Your task to perform on an android device: Show me the best rated power washer on Home Depot. Image 0: 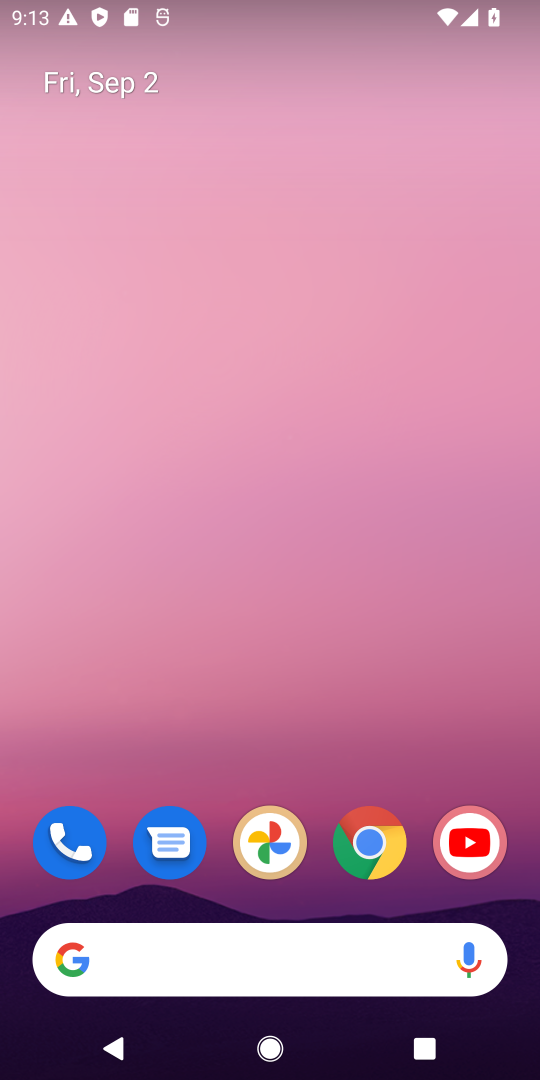
Step 0: drag from (246, 830) to (94, 2)
Your task to perform on an android device: Show me the best rated power washer on Home Depot. Image 1: 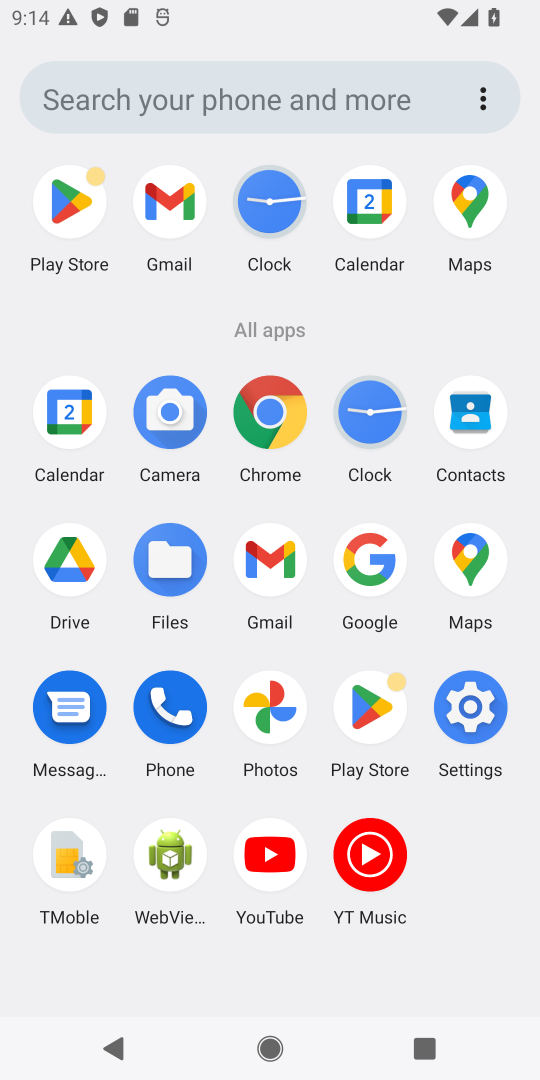
Step 1: click (281, 416)
Your task to perform on an android device: Show me the best rated power washer on Home Depot. Image 2: 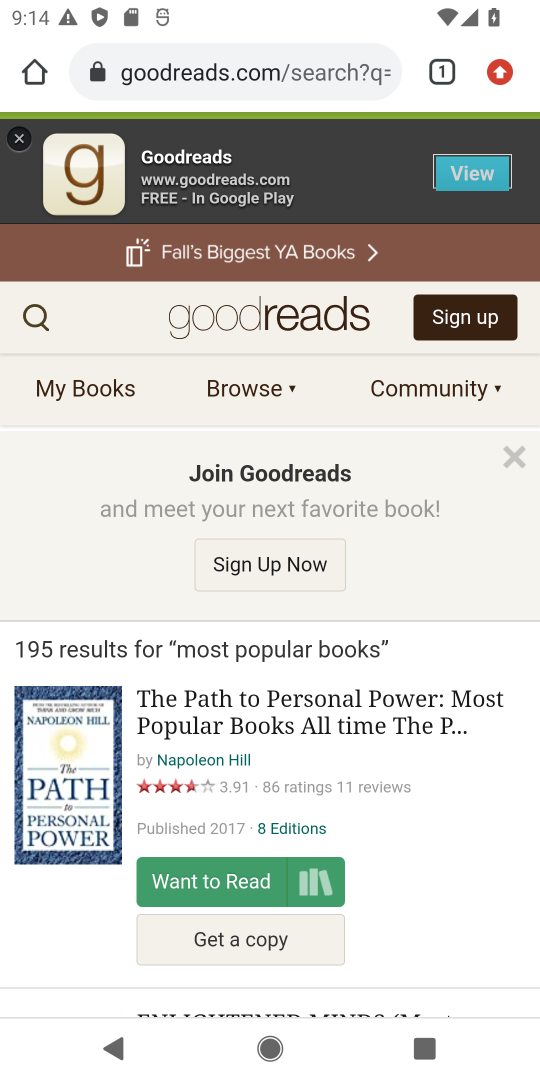
Step 2: click (312, 62)
Your task to perform on an android device: Show me the best rated power washer on Home Depot. Image 3: 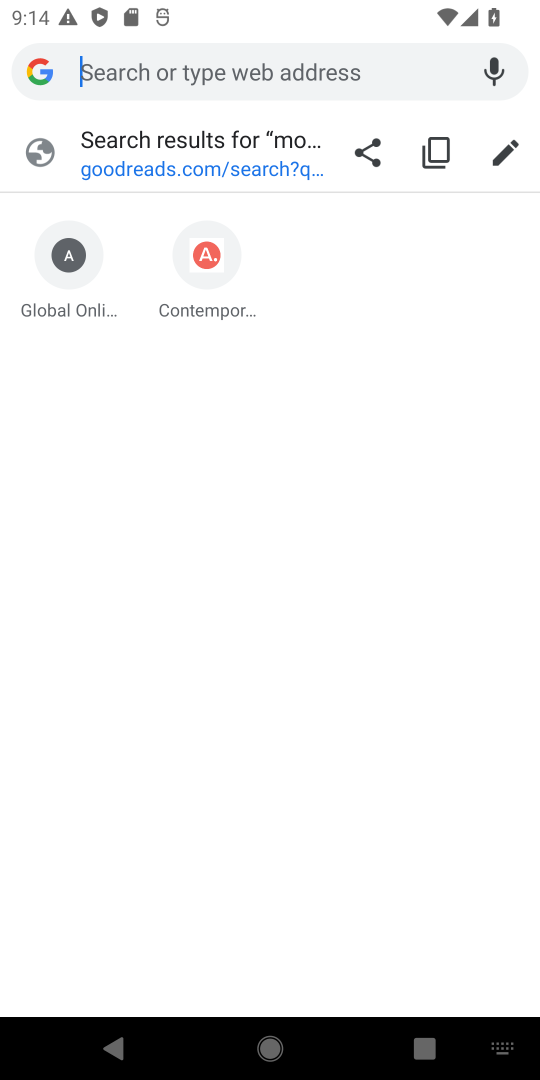
Step 3: press enter
Your task to perform on an android device: Show me the best rated power washer on Home Depot. Image 4: 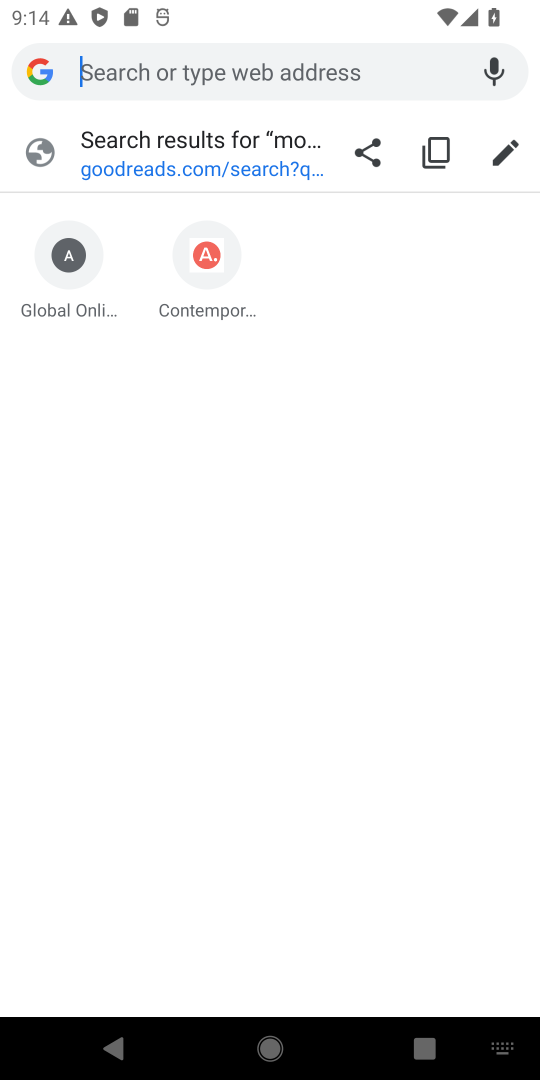
Step 4: type "Home Depot."
Your task to perform on an android device: Show me the best rated power washer on Home Depot. Image 5: 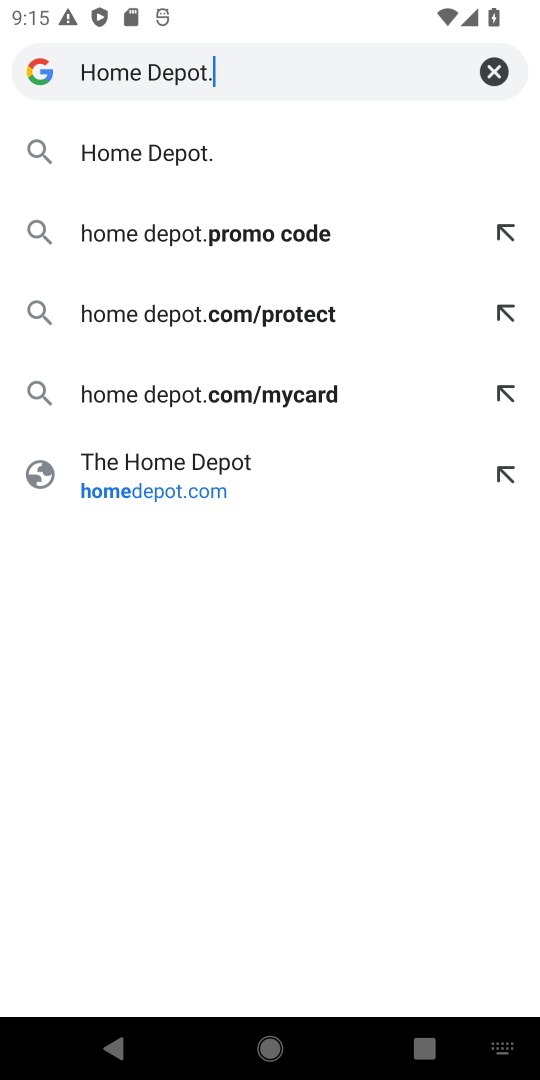
Step 5: press enter
Your task to perform on an android device: Show me the best rated power washer on Home Depot. Image 6: 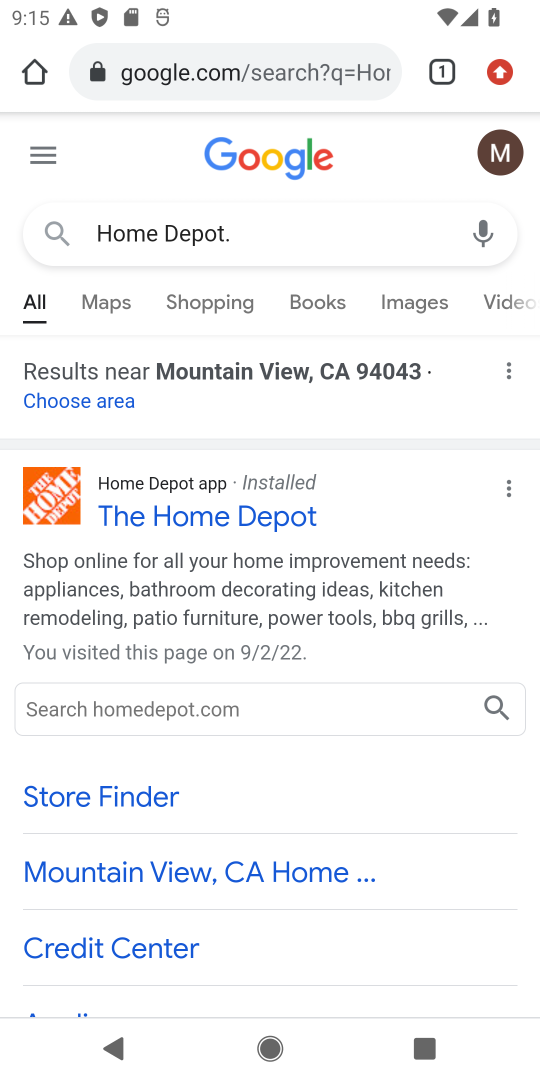
Step 6: click (247, 514)
Your task to perform on an android device: Show me the best rated power washer on Home Depot. Image 7: 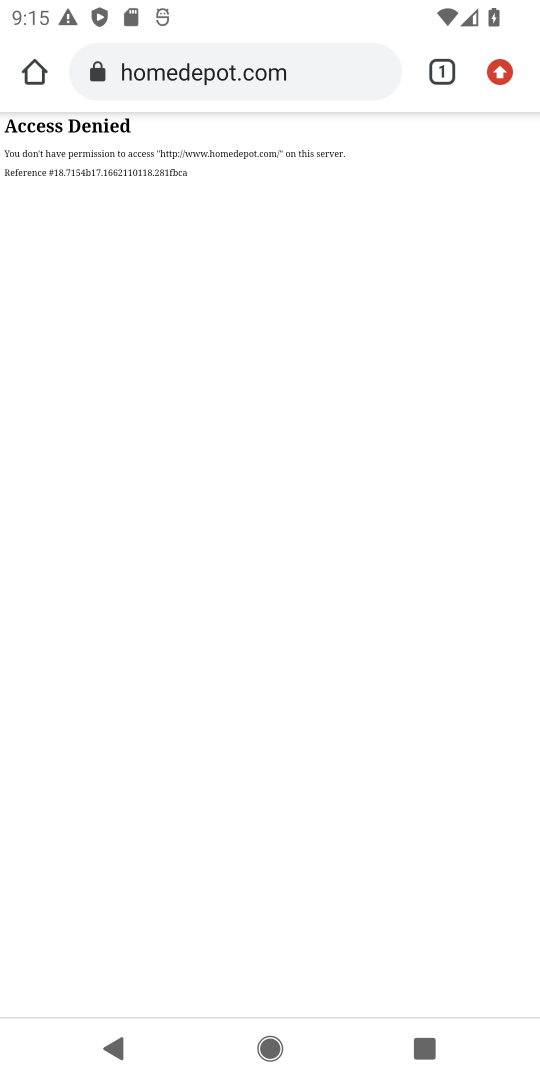
Step 7: task complete